Your task to perform on an android device: Go to Reddit.com Image 0: 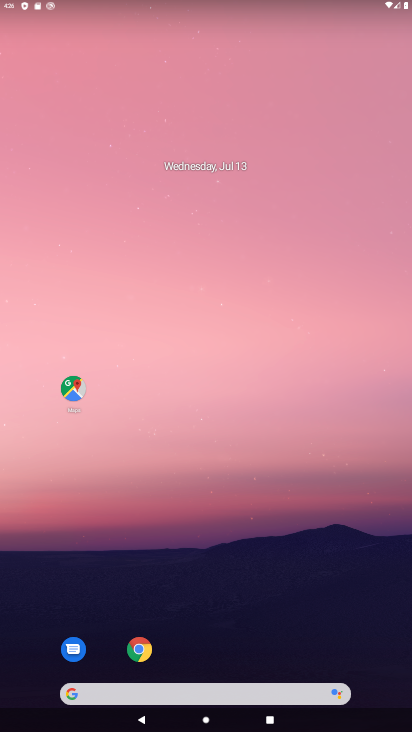
Step 0: click (181, 692)
Your task to perform on an android device: Go to Reddit.com Image 1: 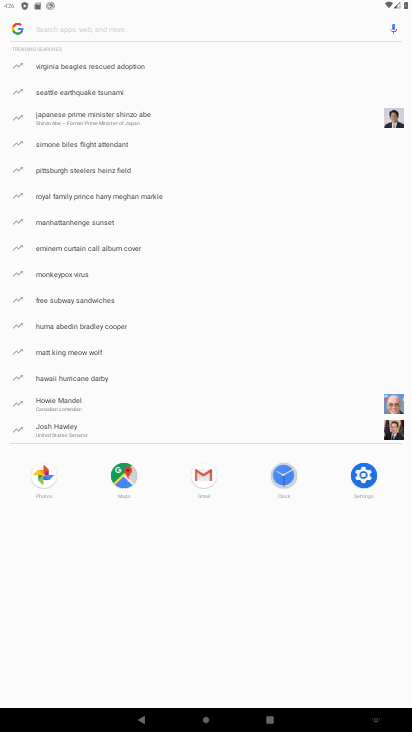
Step 1: type "Reddit.com"
Your task to perform on an android device: Go to Reddit.com Image 2: 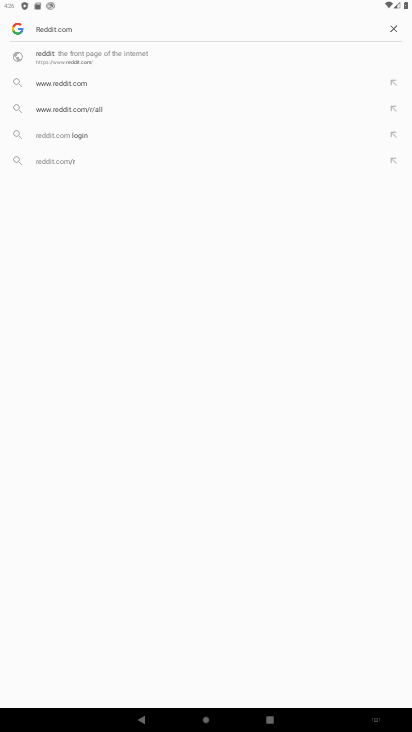
Step 2: click (88, 85)
Your task to perform on an android device: Go to Reddit.com Image 3: 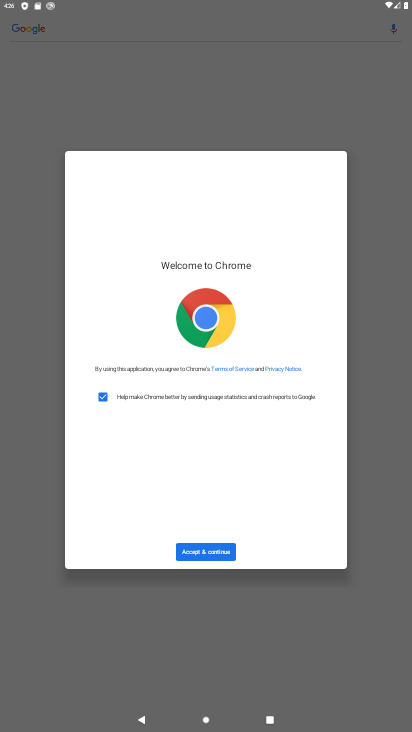
Step 3: click (204, 548)
Your task to perform on an android device: Go to Reddit.com Image 4: 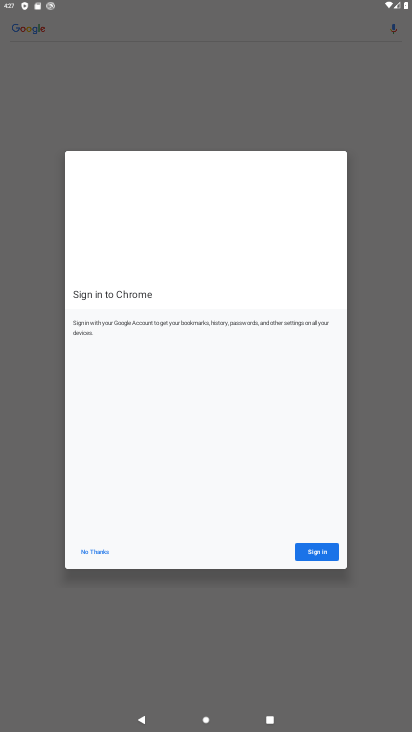
Step 4: click (315, 542)
Your task to perform on an android device: Go to Reddit.com Image 5: 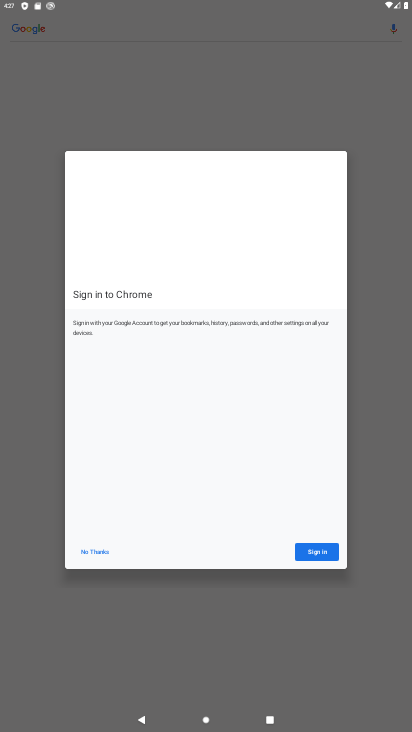
Step 5: click (316, 540)
Your task to perform on an android device: Go to Reddit.com Image 6: 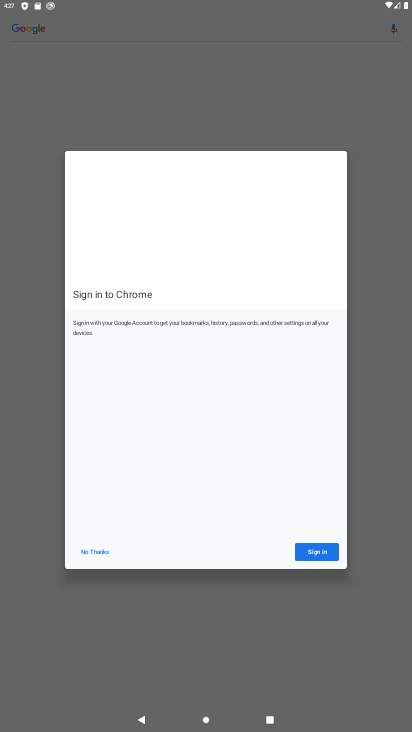
Step 6: click (87, 551)
Your task to perform on an android device: Go to Reddit.com Image 7: 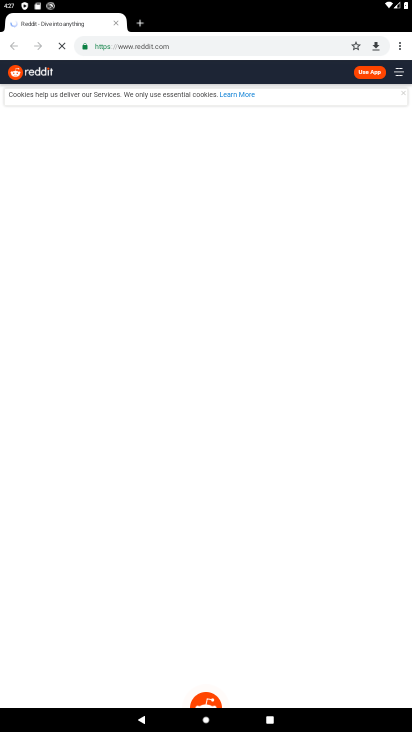
Step 7: task complete